Your task to perform on an android device: turn off location Image 0: 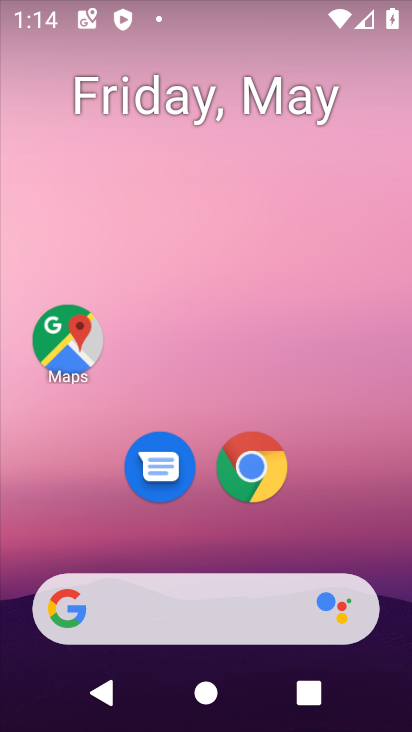
Step 0: drag from (306, 533) to (304, 125)
Your task to perform on an android device: turn off location Image 1: 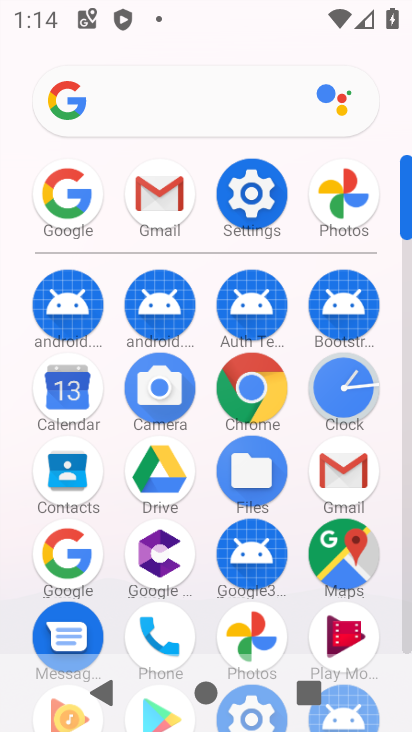
Step 1: click (252, 192)
Your task to perform on an android device: turn off location Image 2: 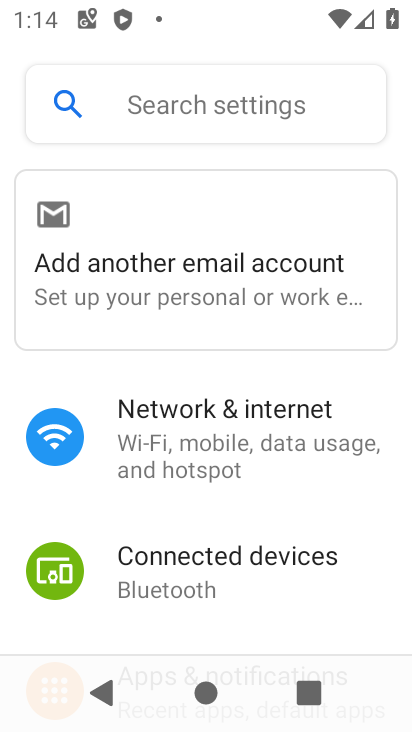
Step 2: drag from (226, 499) to (297, 340)
Your task to perform on an android device: turn off location Image 3: 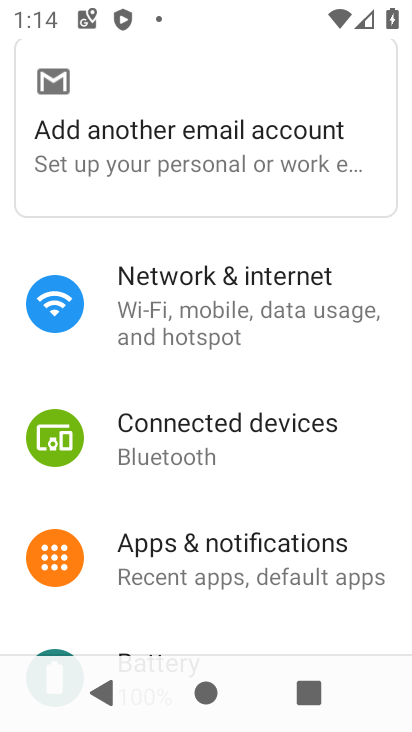
Step 3: drag from (216, 509) to (266, 406)
Your task to perform on an android device: turn off location Image 4: 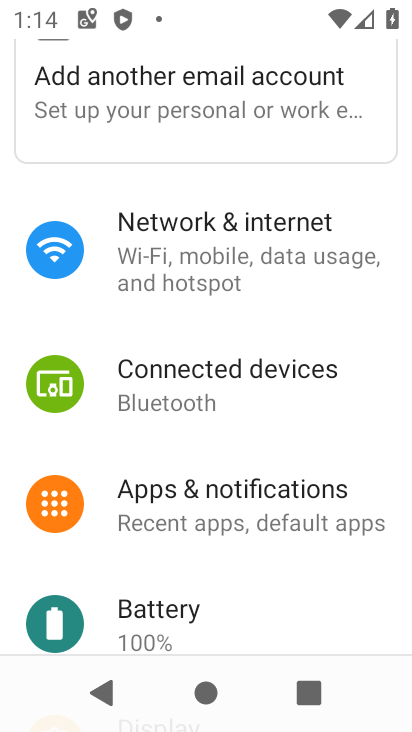
Step 4: drag from (197, 589) to (279, 459)
Your task to perform on an android device: turn off location Image 5: 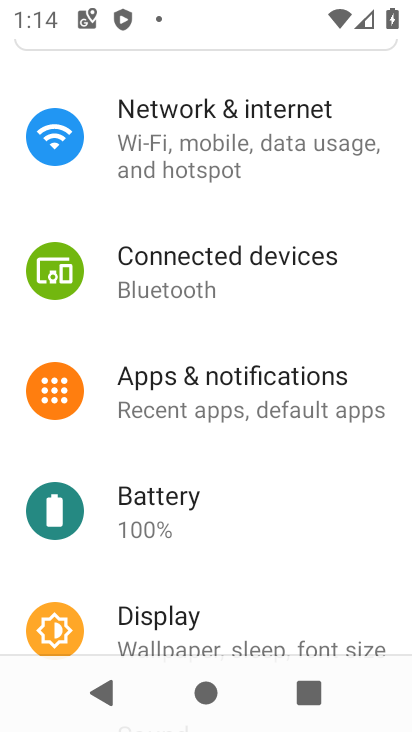
Step 5: drag from (231, 570) to (280, 426)
Your task to perform on an android device: turn off location Image 6: 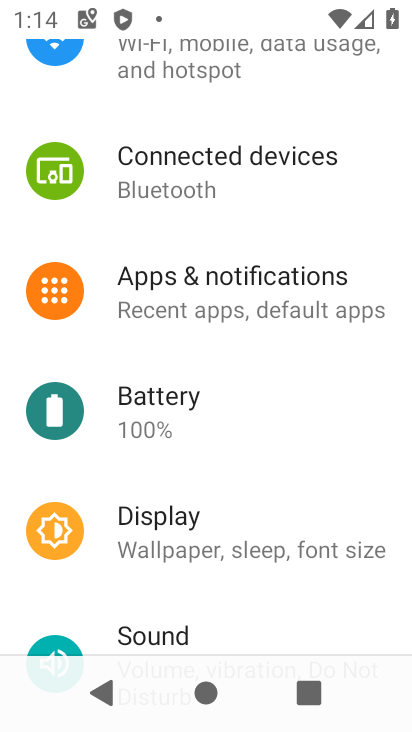
Step 6: drag from (218, 575) to (285, 443)
Your task to perform on an android device: turn off location Image 7: 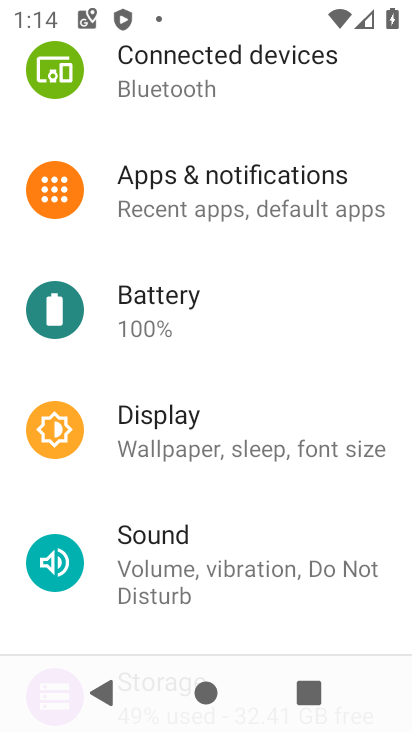
Step 7: drag from (260, 513) to (302, 392)
Your task to perform on an android device: turn off location Image 8: 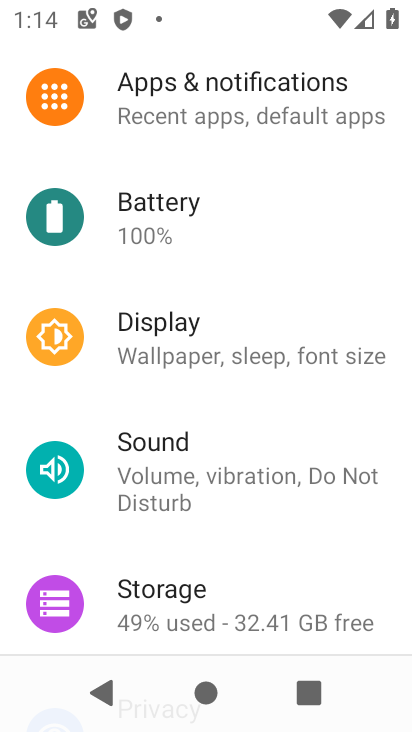
Step 8: drag from (228, 541) to (308, 408)
Your task to perform on an android device: turn off location Image 9: 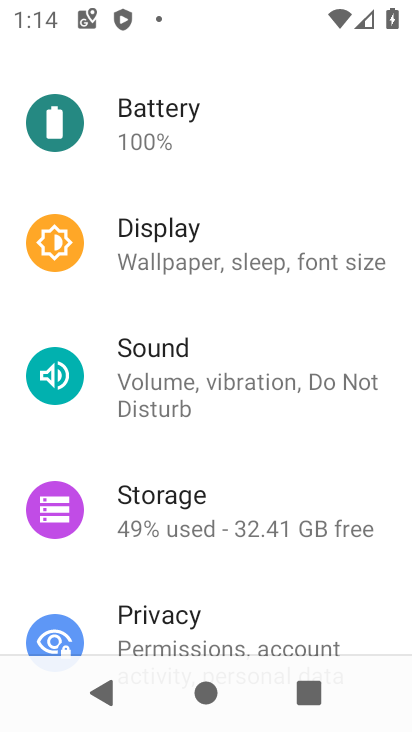
Step 9: drag from (223, 584) to (305, 404)
Your task to perform on an android device: turn off location Image 10: 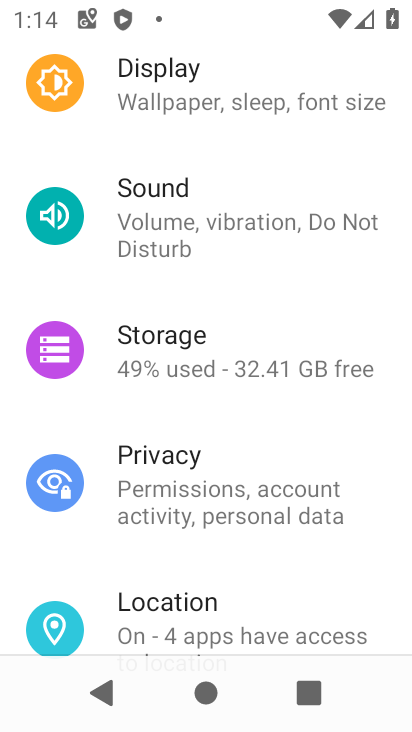
Step 10: drag from (249, 573) to (336, 425)
Your task to perform on an android device: turn off location Image 11: 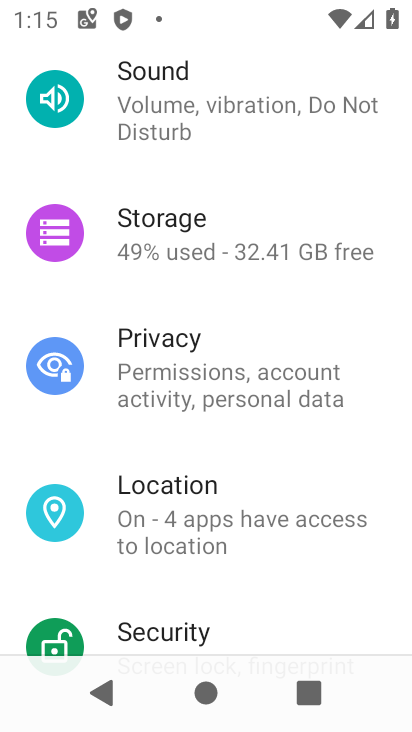
Step 11: click (237, 503)
Your task to perform on an android device: turn off location Image 12: 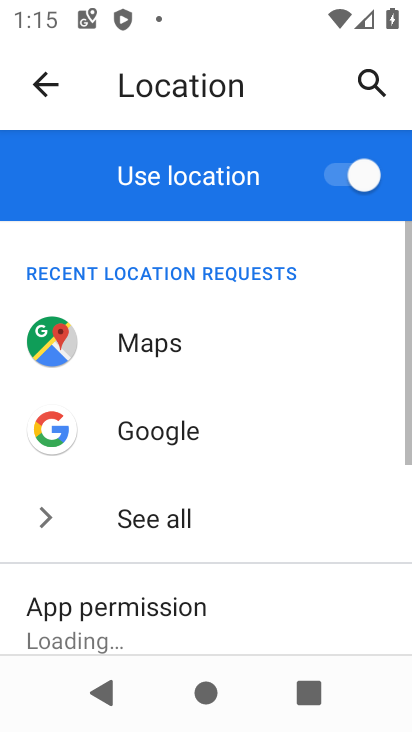
Step 12: click (365, 174)
Your task to perform on an android device: turn off location Image 13: 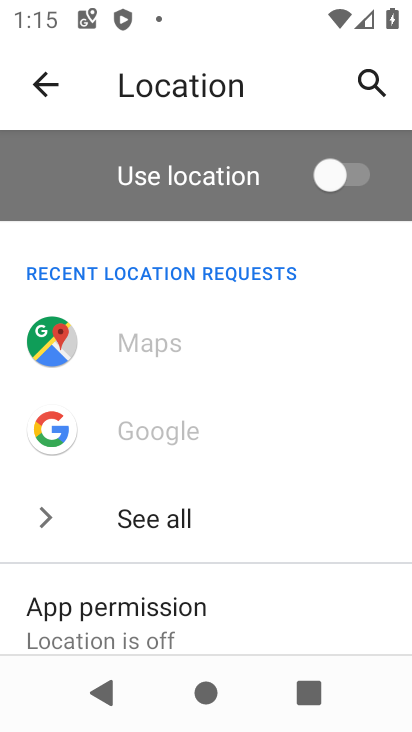
Step 13: task complete